Your task to perform on an android device: How much does a 3 bedroom apartment rent for in New York? Image 0: 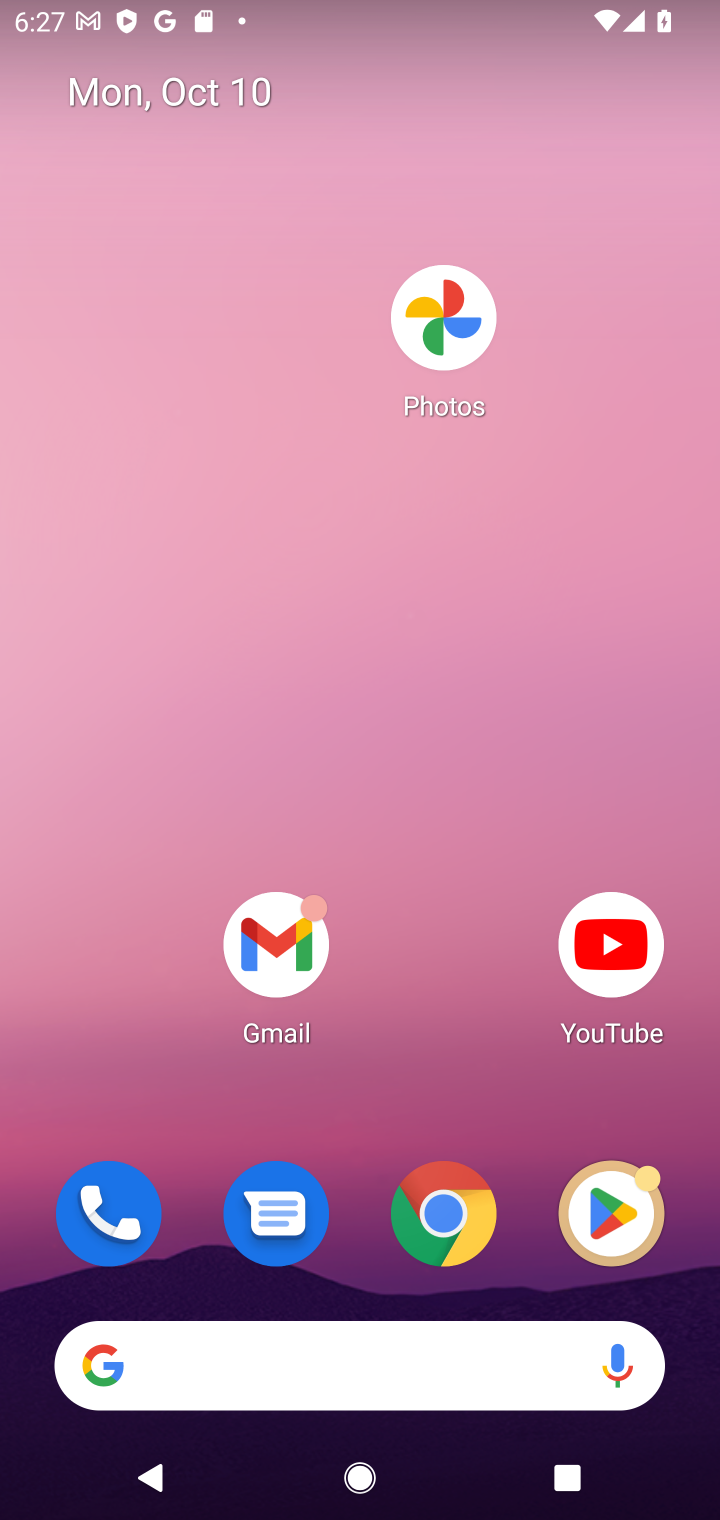
Step 0: click (335, 1370)
Your task to perform on an android device: How much does a 3 bedroom apartment rent for in New York? Image 1: 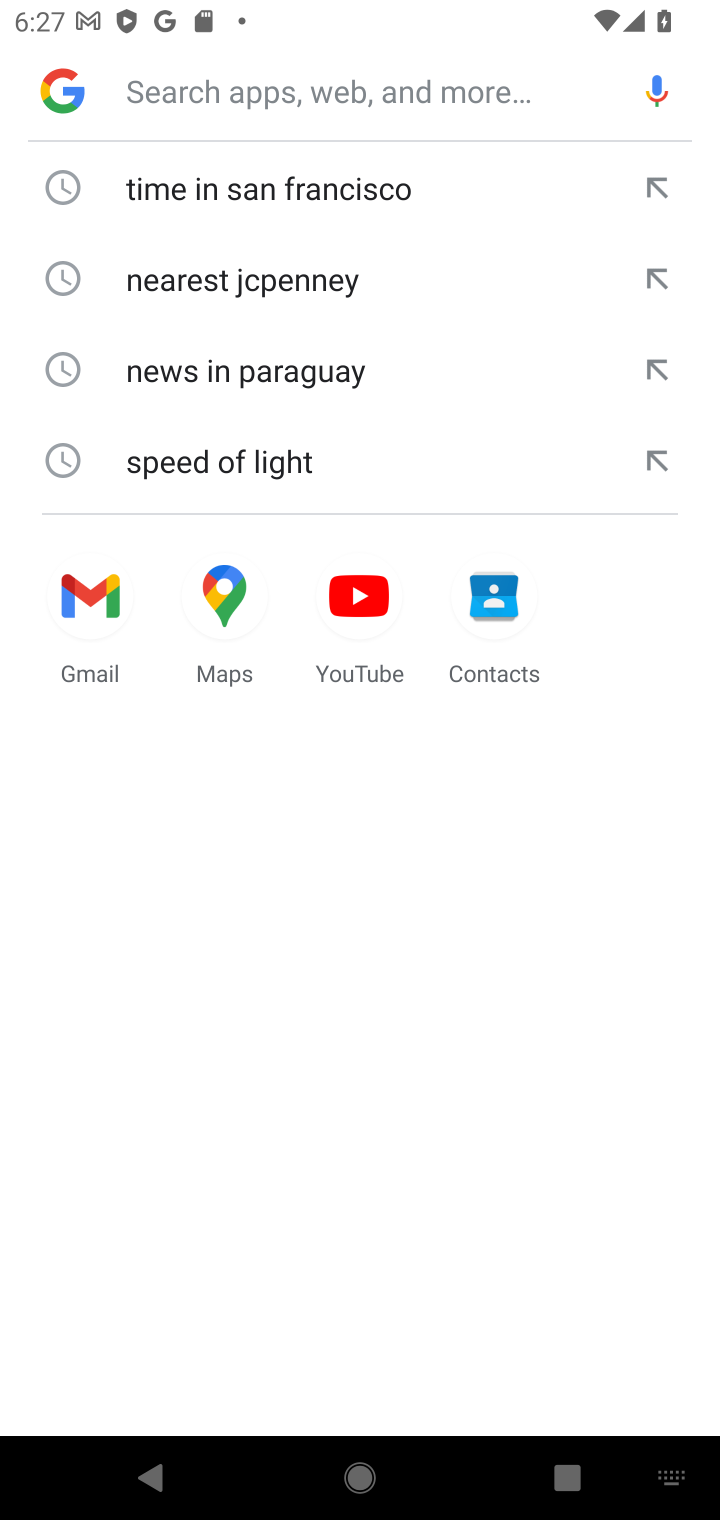
Step 1: type "3 bedroom apartment rent for in New York"
Your task to perform on an android device: How much does a 3 bedroom apartment rent for in New York? Image 2: 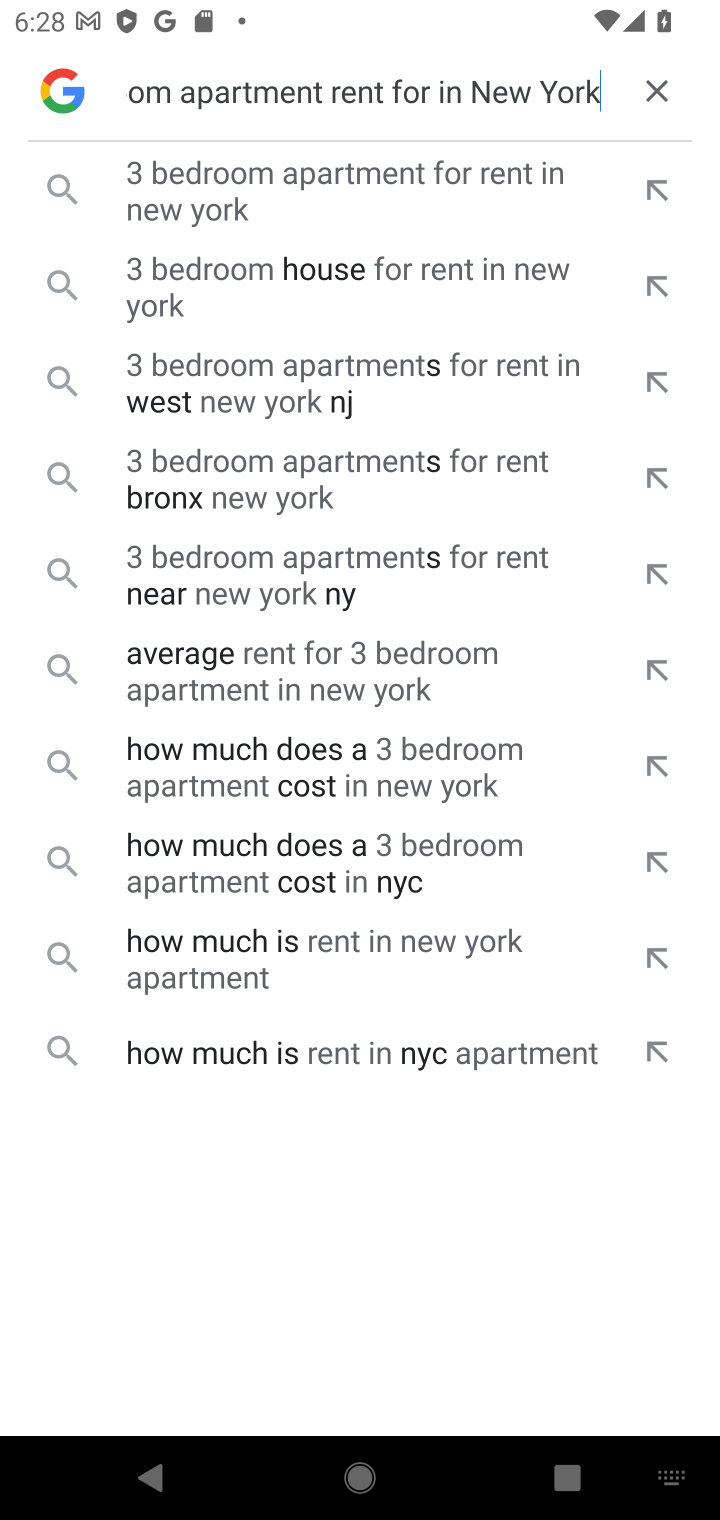
Step 2: click (413, 192)
Your task to perform on an android device: How much does a 3 bedroom apartment rent for in New York? Image 3: 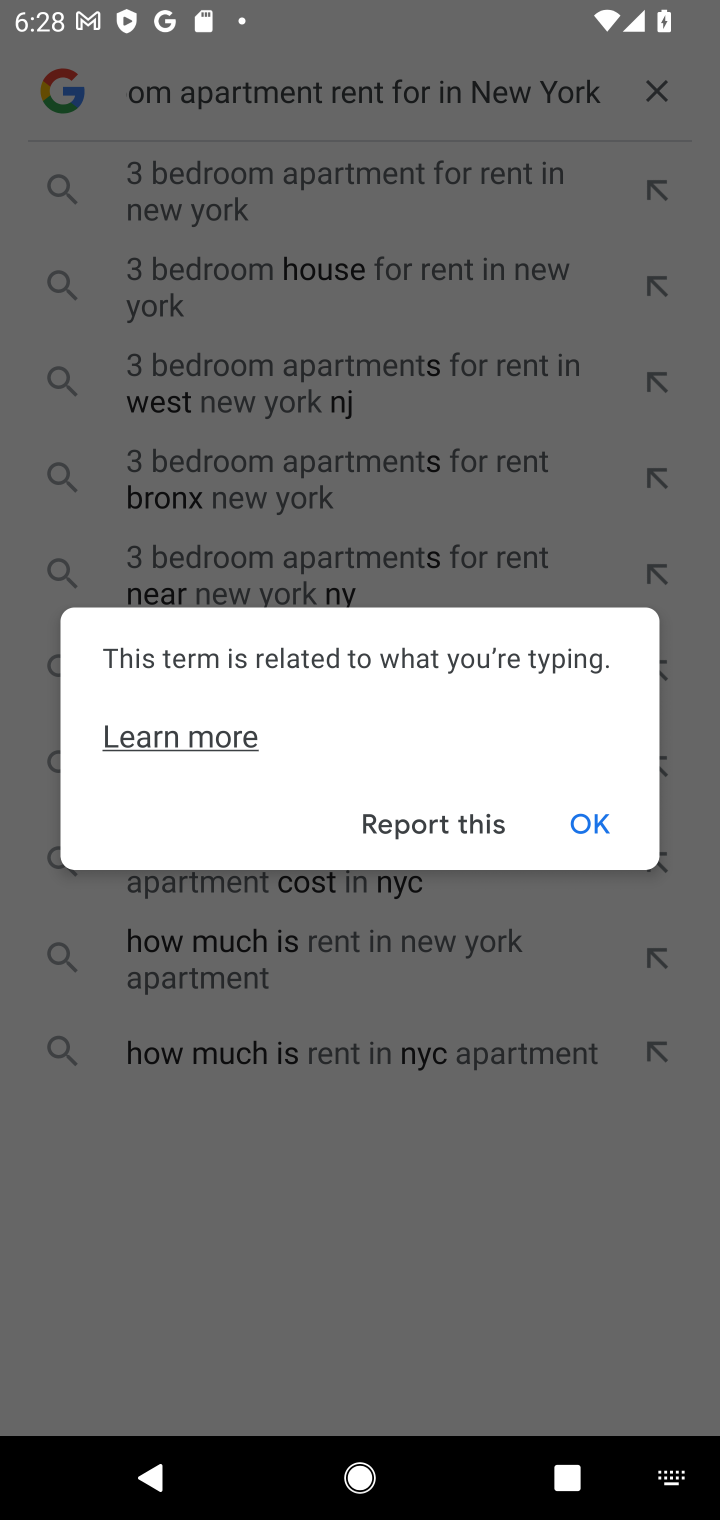
Step 3: click (564, 820)
Your task to perform on an android device: How much does a 3 bedroom apartment rent for in New York? Image 4: 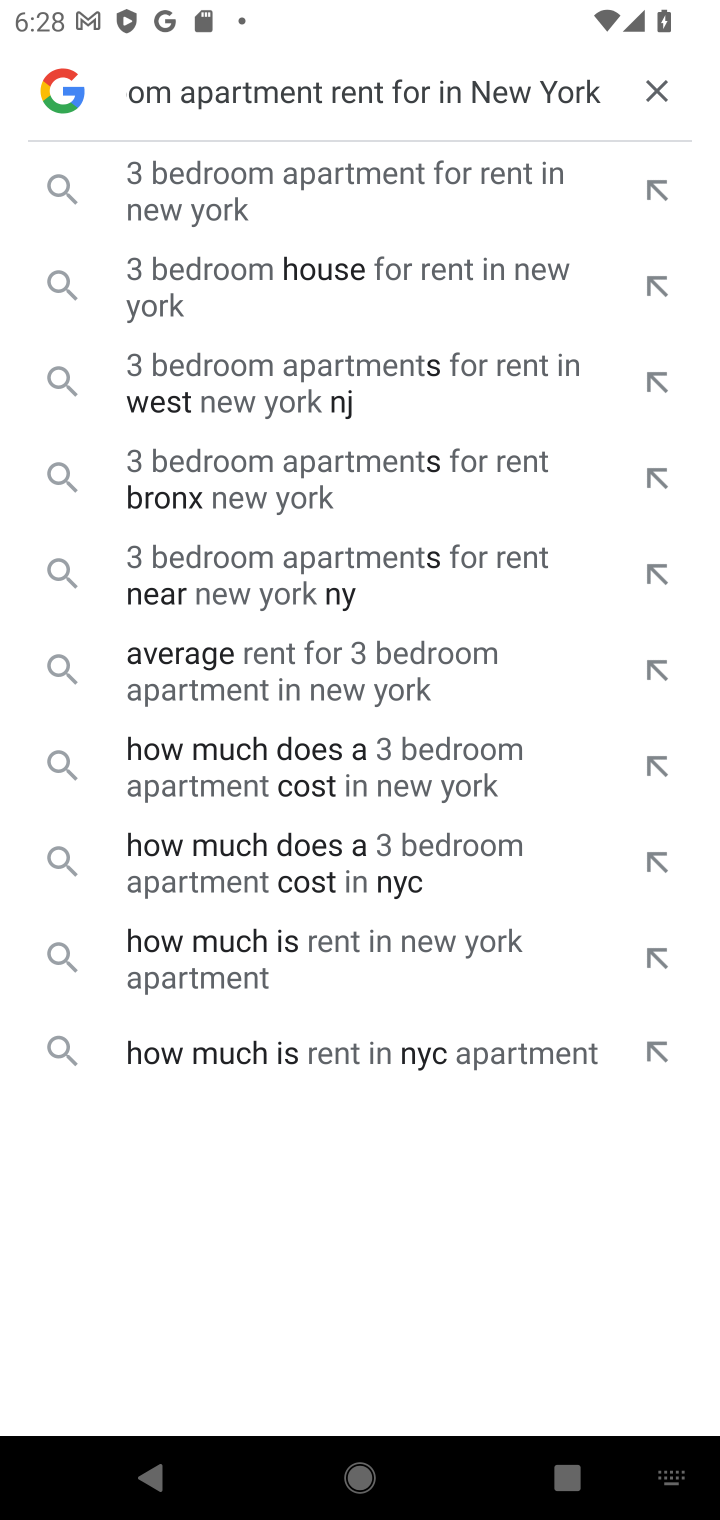
Step 4: click (164, 187)
Your task to perform on an android device: How much does a 3 bedroom apartment rent for in New York? Image 5: 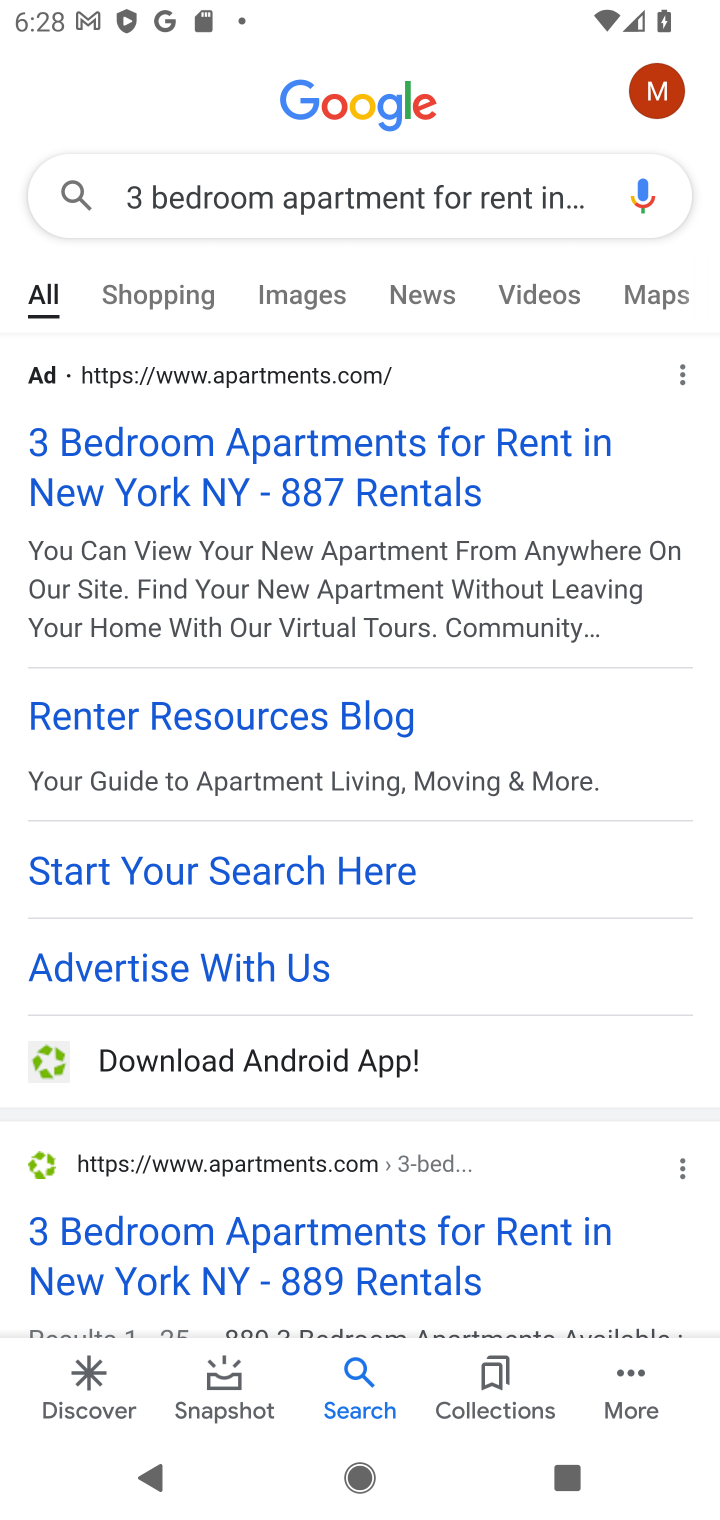
Step 5: click (275, 1248)
Your task to perform on an android device: How much does a 3 bedroom apartment rent for in New York? Image 6: 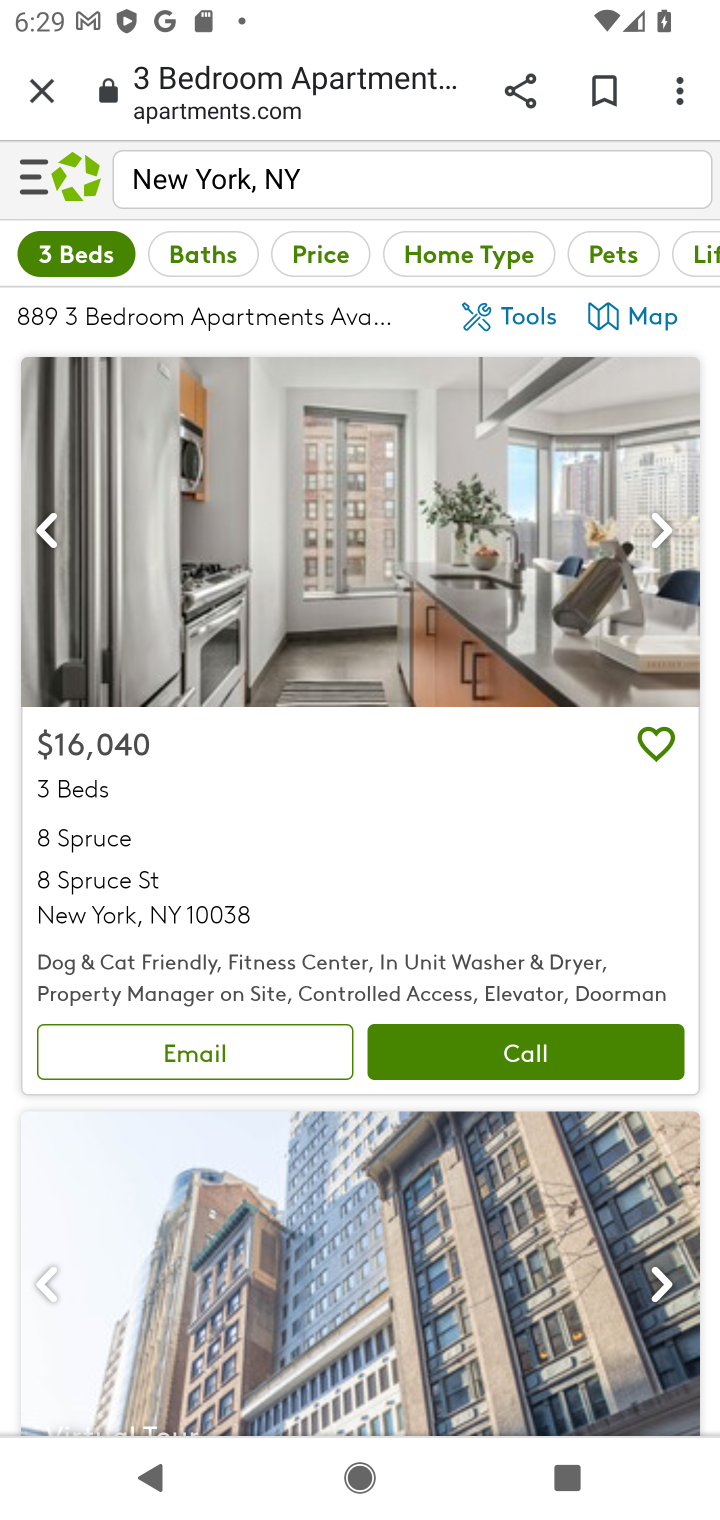
Step 6: task complete